Your task to perform on an android device: turn on airplane mode Image 0: 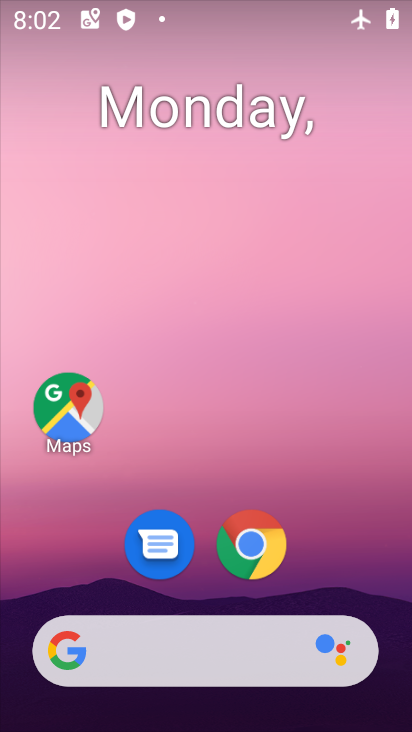
Step 0: drag from (345, 533) to (171, 122)
Your task to perform on an android device: turn on airplane mode Image 1: 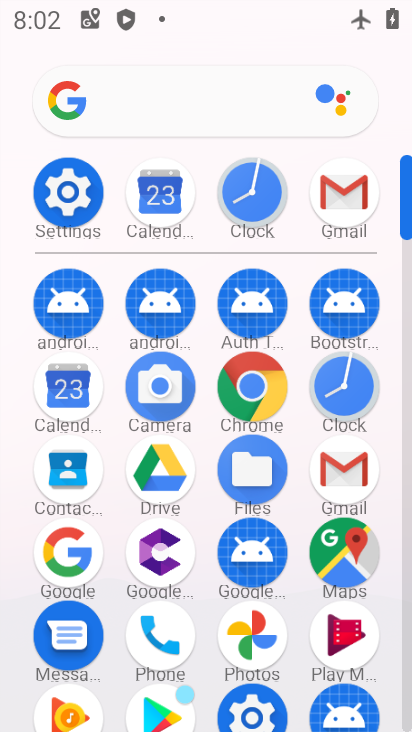
Step 1: click (65, 185)
Your task to perform on an android device: turn on airplane mode Image 2: 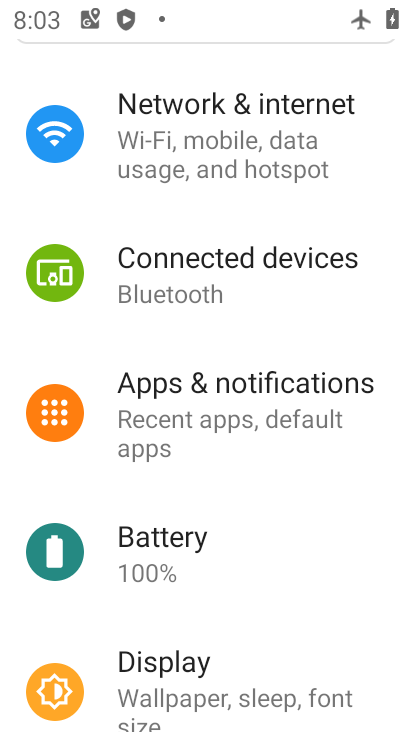
Step 2: click (198, 126)
Your task to perform on an android device: turn on airplane mode Image 3: 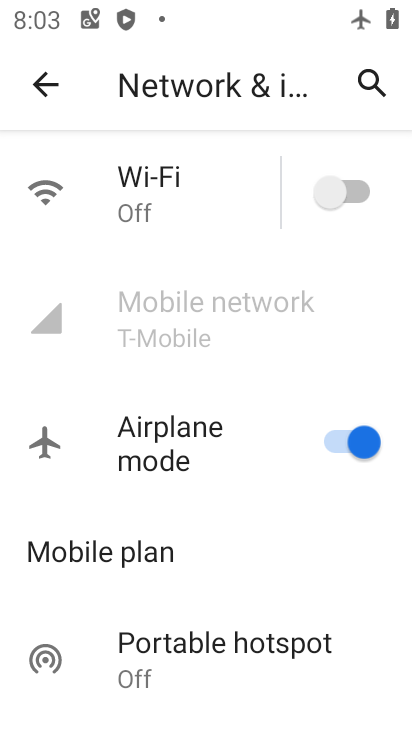
Step 3: task complete